Your task to perform on an android device: View the shopping cart on walmart.com. Search for "logitech g pro" on walmart.com, select the first entry, and add it to the cart. Image 0: 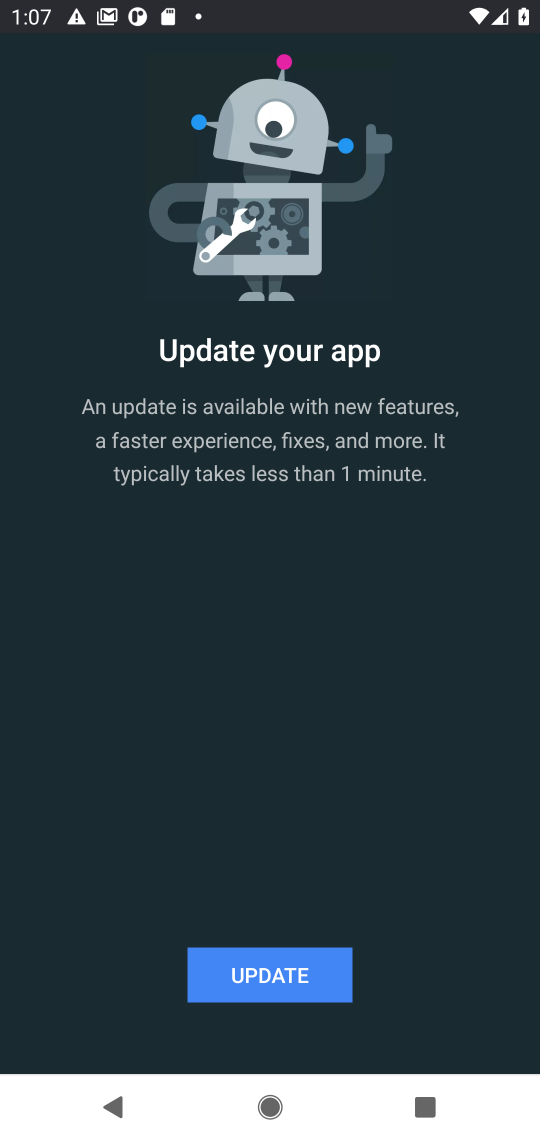
Step 0: press home button
Your task to perform on an android device: View the shopping cart on walmart.com. Search for "logitech g pro" on walmart.com, select the first entry, and add it to the cart. Image 1: 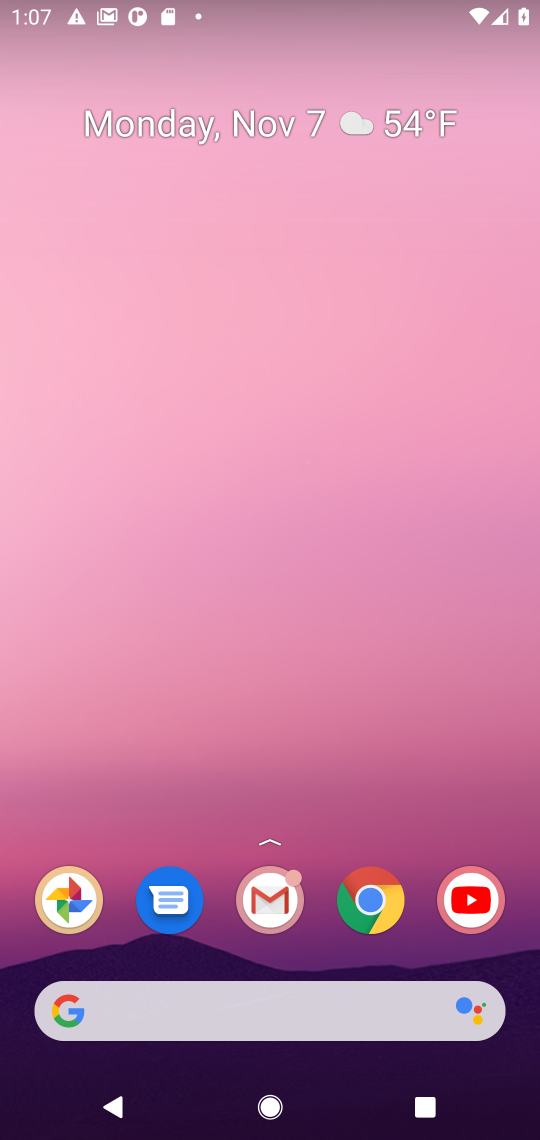
Step 1: click (334, 1017)
Your task to perform on an android device: View the shopping cart on walmart.com. Search for "logitech g pro" on walmart.com, select the first entry, and add it to the cart. Image 2: 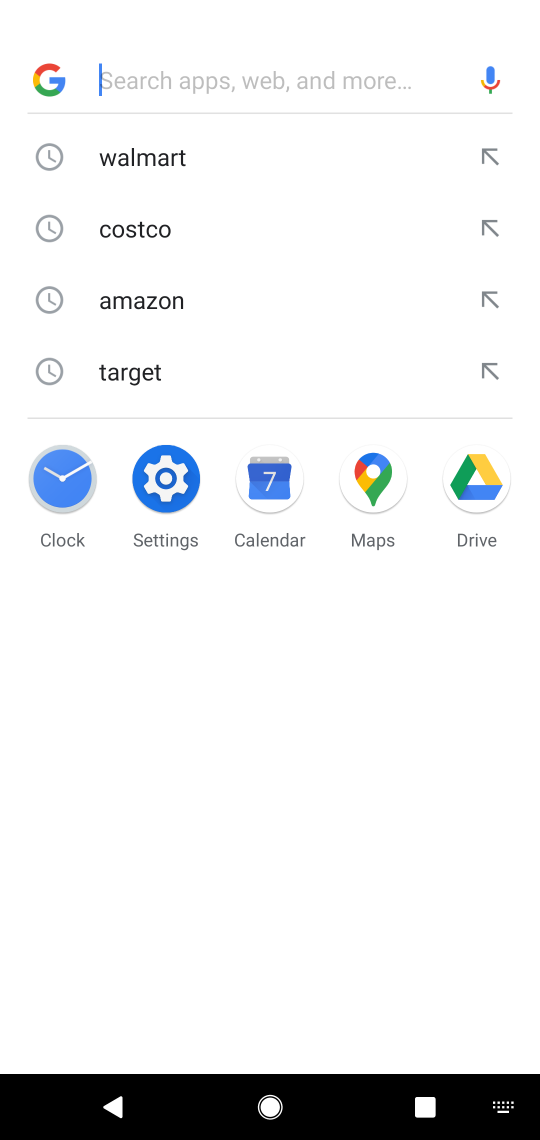
Step 2: click (305, 157)
Your task to perform on an android device: View the shopping cart on walmart.com. Search for "logitech g pro" on walmart.com, select the first entry, and add it to the cart. Image 3: 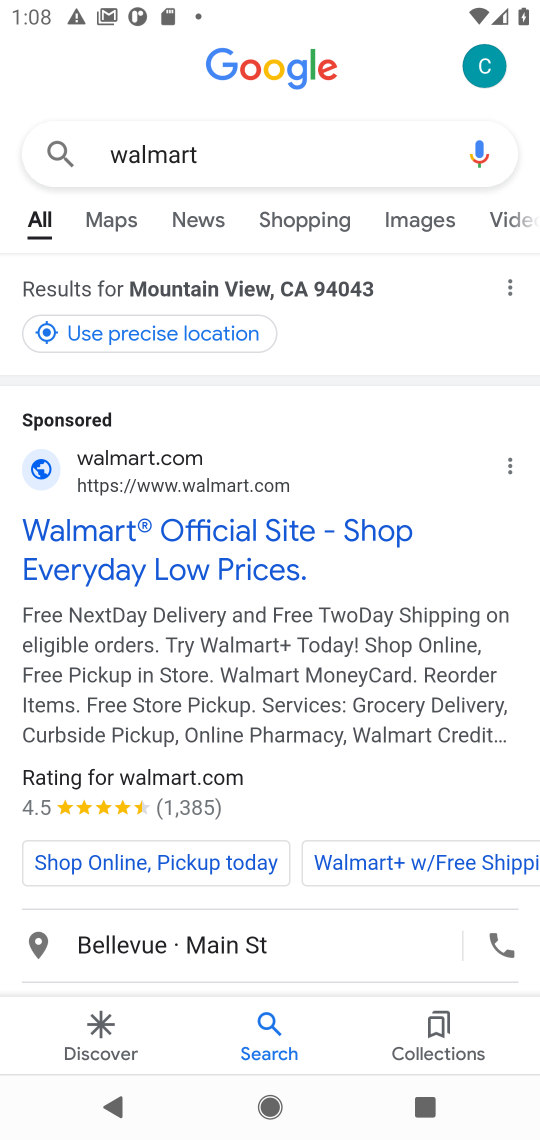
Step 3: click (273, 522)
Your task to perform on an android device: View the shopping cart on walmart.com. Search for "logitech g pro" on walmart.com, select the first entry, and add it to the cart. Image 4: 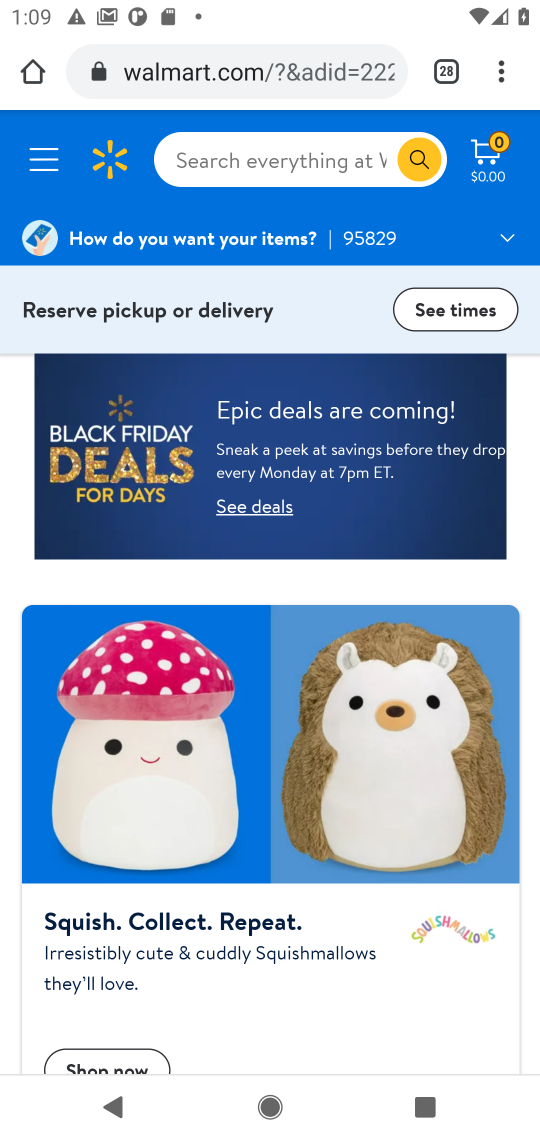
Step 4: task complete